Your task to perform on an android device: turn off picture-in-picture Image 0: 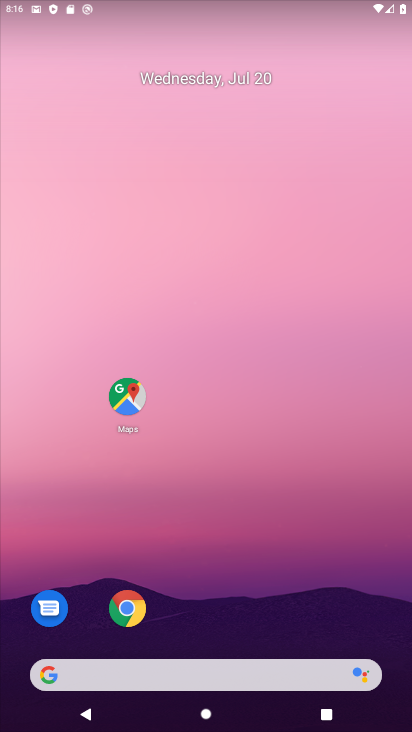
Step 0: task impossible